Your task to perform on an android device: open wifi settings Image 0: 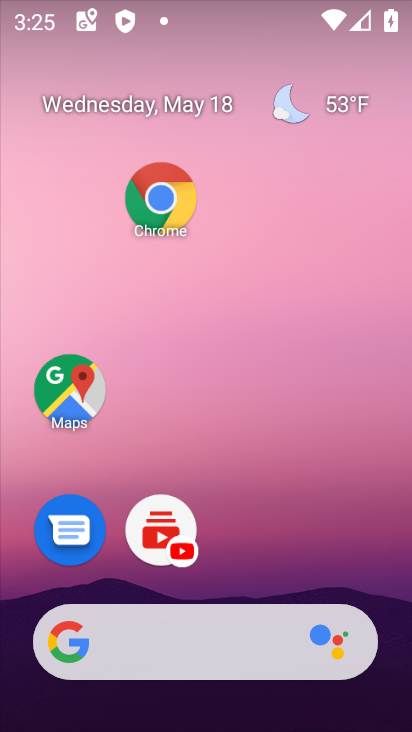
Step 0: drag from (374, 628) to (160, 64)
Your task to perform on an android device: open wifi settings Image 1: 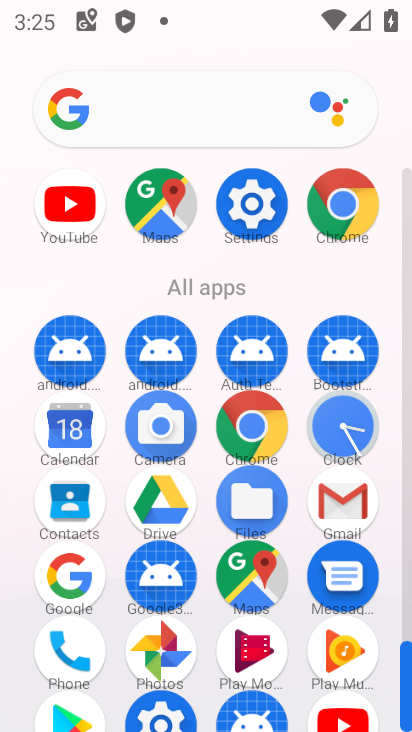
Step 1: click (261, 209)
Your task to perform on an android device: open wifi settings Image 2: 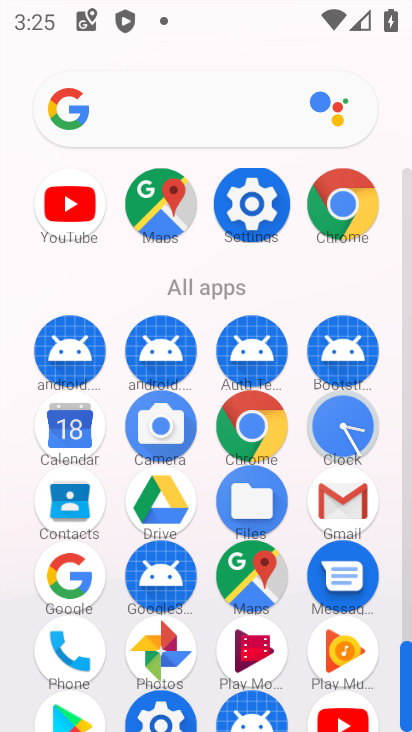
Step 2: click (261, 209)
Your task to perform on an android device: open wifi settings Image 3: 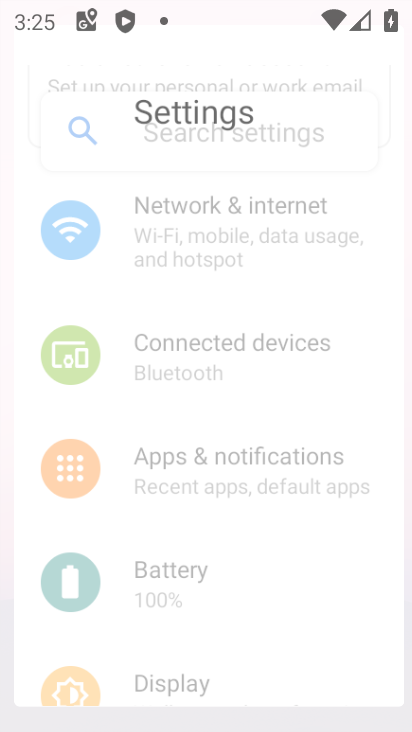
Step 3: click (262, 208)
Your task to perform on an android device: open wifi settings Image 4: 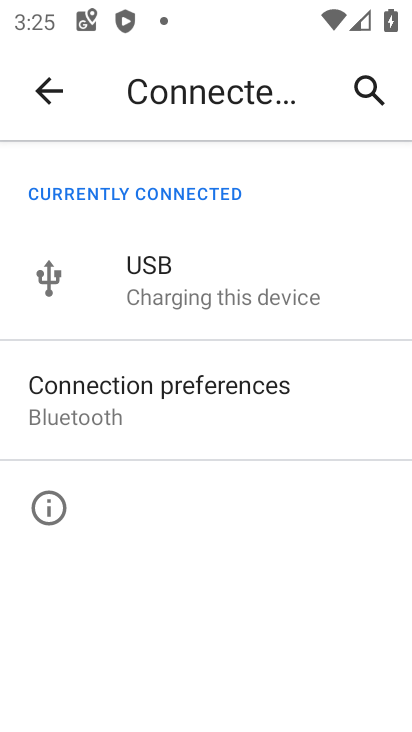
Step 4: click (34, 93)
Your task to perform on an android device: open wifi settings Image 5: 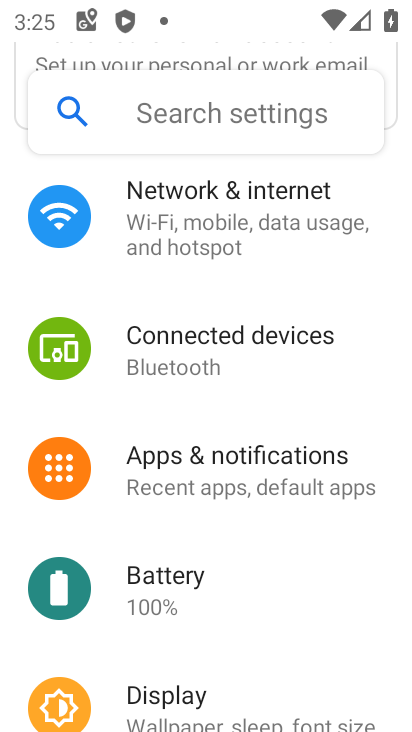
Step 5: click (176, 226)
Your task to perform on an android device: open wifi settings Image 6: 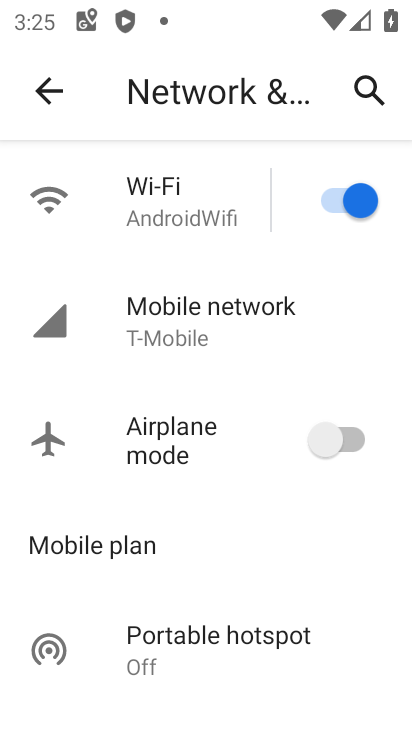
Step 6: task complete